Your task to perform on an android device: Play the last video I watched on Youtube Image 0: 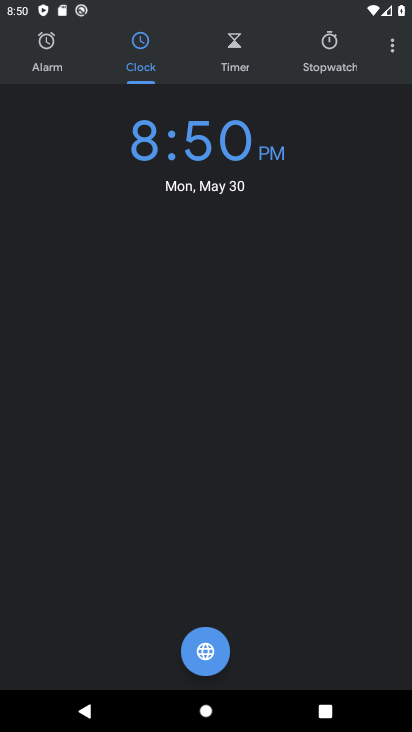
Step 0: press home button
Your task to perform on an android device: Play the last video I watched on Youtube Image 1: 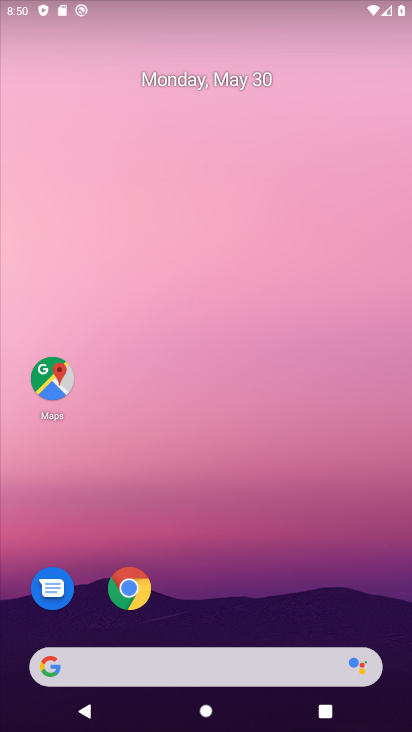
Step 1: drag from (324, 583) to (199, 212)
Your task to perform on an android device: Play the last video I watched on Youtube Image 2: 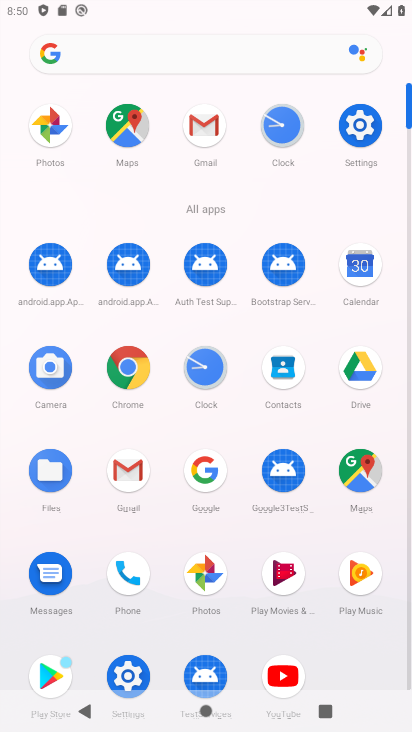
Step 2: click (282, 683)
Your task to perform on an android device: Play the last video I watched on Youtube Image 3: 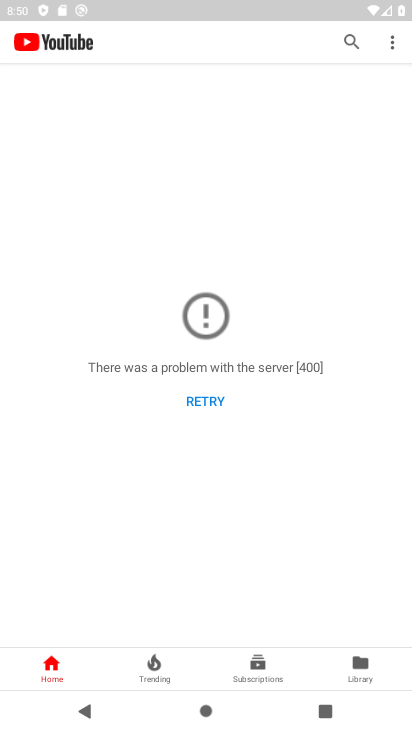
Step 3: click (360, 668)
Your task to perform on an android device: Play the last video I watched on Youtube Image 4: 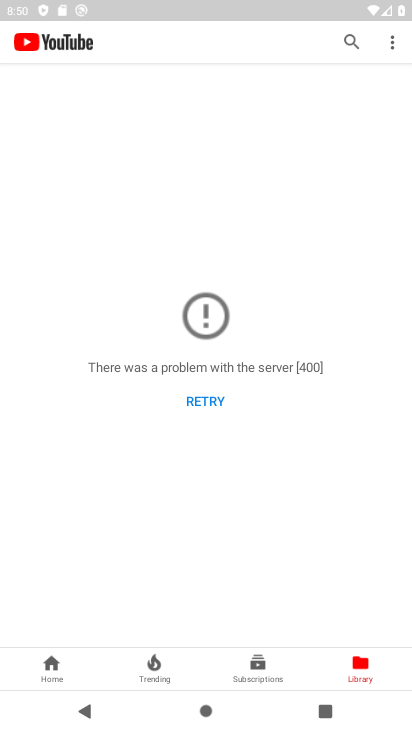
Step 4: task complete